Your task to perform on an android device: Show me popular games on the Play Store Image 0: 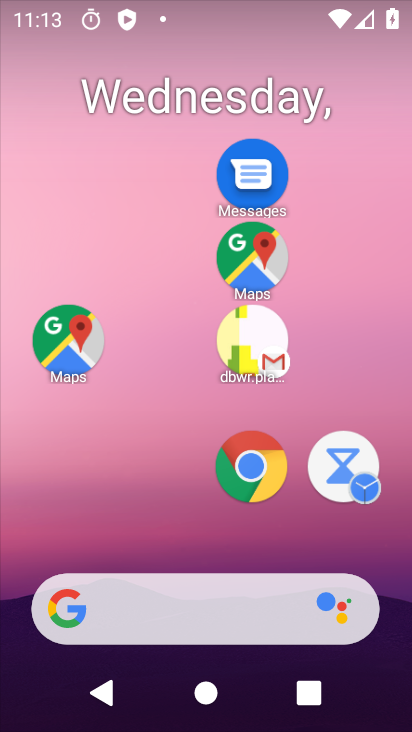
Step 0: drag from (337, 714) to (274, 143)
Your task to perform on an android device: Show me popular games on the Play Store Image 1: 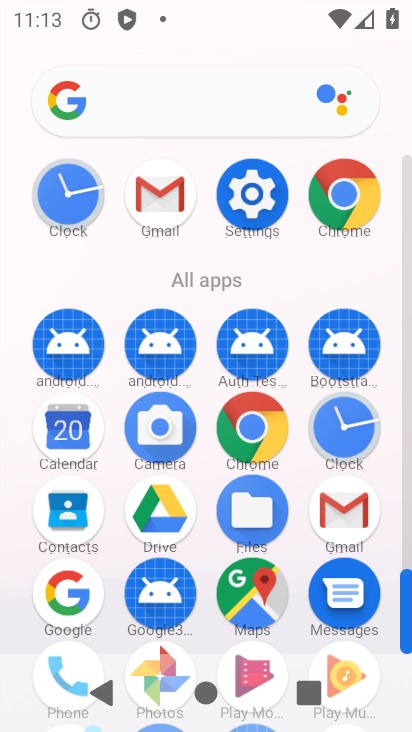
Step 1: drag from (294, 591) to (229, 144)
Your task to perform on an android device: Show me popular games on the Play Store Image 2: 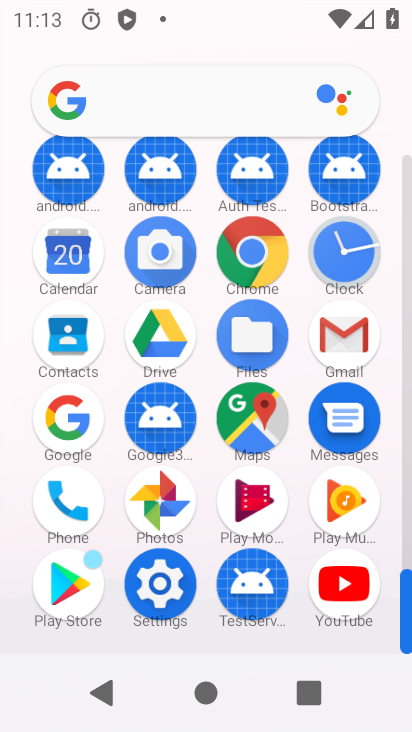
Step 2: drag from (247, 618) to (255, 231)
Your task to perform on an android device: Show me popular games on the Play Store Image 3: 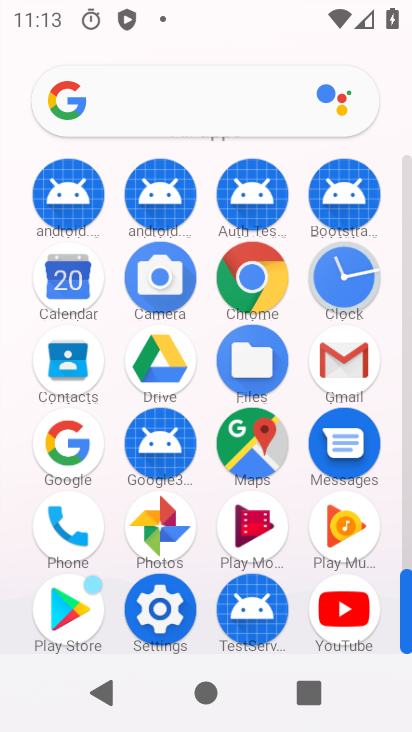
Step 3: click (71, 611)
Your task to perform on an android device: Show me popular games on the Play Store Image 4: 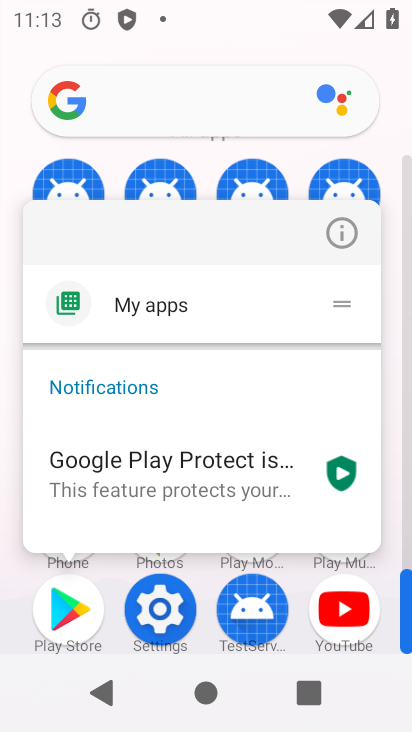
Step 4: click (85, 601)
Your task to perform on an android device: Show me popular games on the Play Store Image 5: 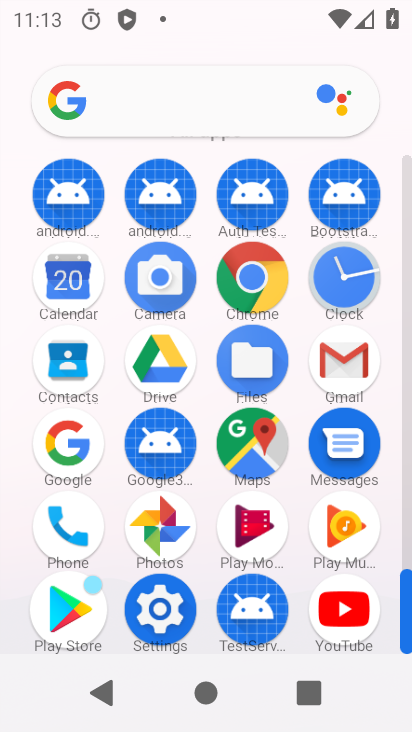
Step 5: click (48, 606)
Your task to perform on an android device: Show me popular games on the Play Store Image 6: 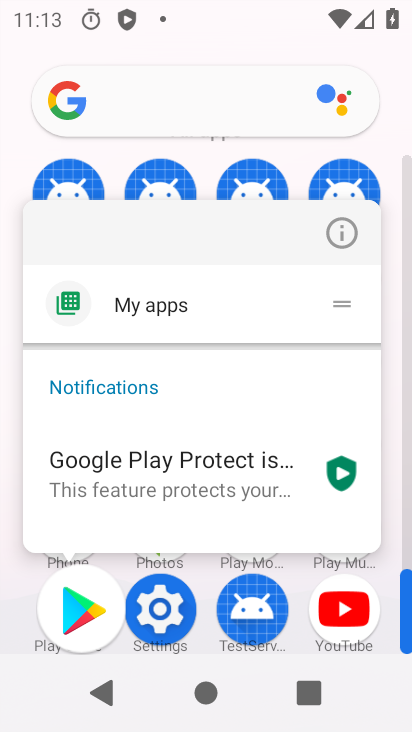
Step 6: click (62, 605)
Your task to perform on an android device: Show me popular games on the Play Store Image 7: 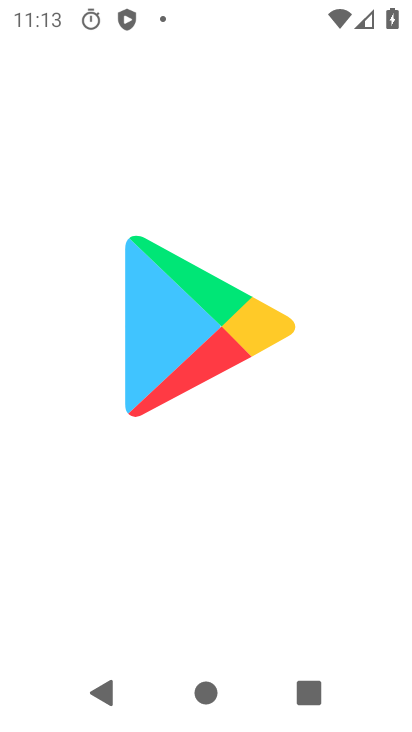
Step 7: click (81, 582)
Your task to perform on an android device: Show me popular games on the Play Store Image 8: 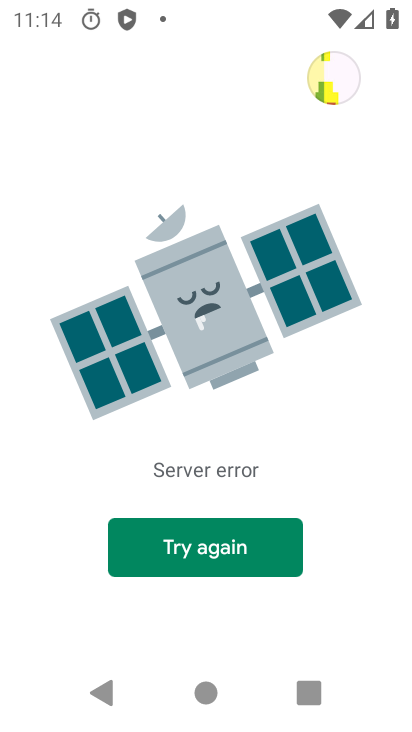
Step 8: task complete